Your task to perform on an android device: Clear the shopping cart on costco.com. Search for alienware area 51 on costco.com, select the first entry, add it to the cart, then select checkout. Image 0: 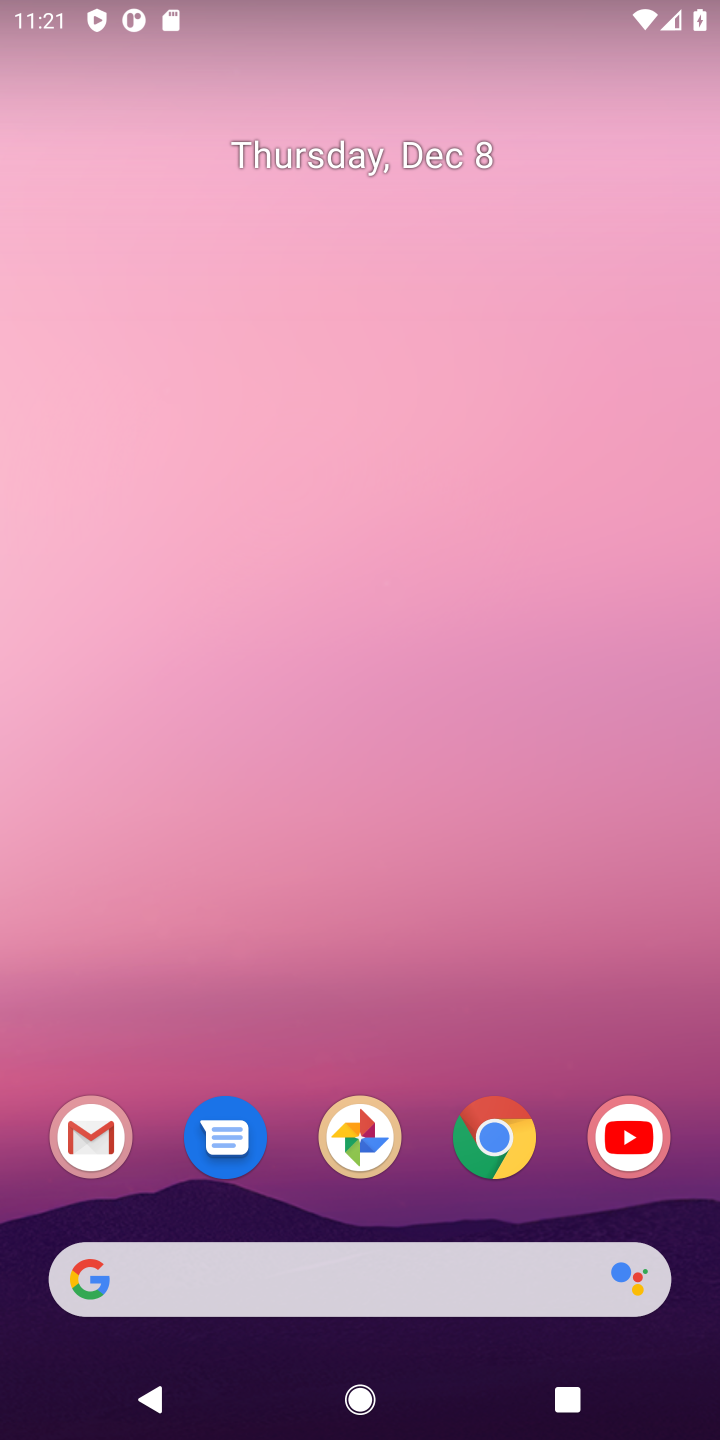
Step 0: click (504, 1133)
Your task to perform on an android device: Clear the shopping cart on costco.com. Search for alienware area 51 on costco.com, select the first entry, add it to the cart, then select checkout. Image 1: 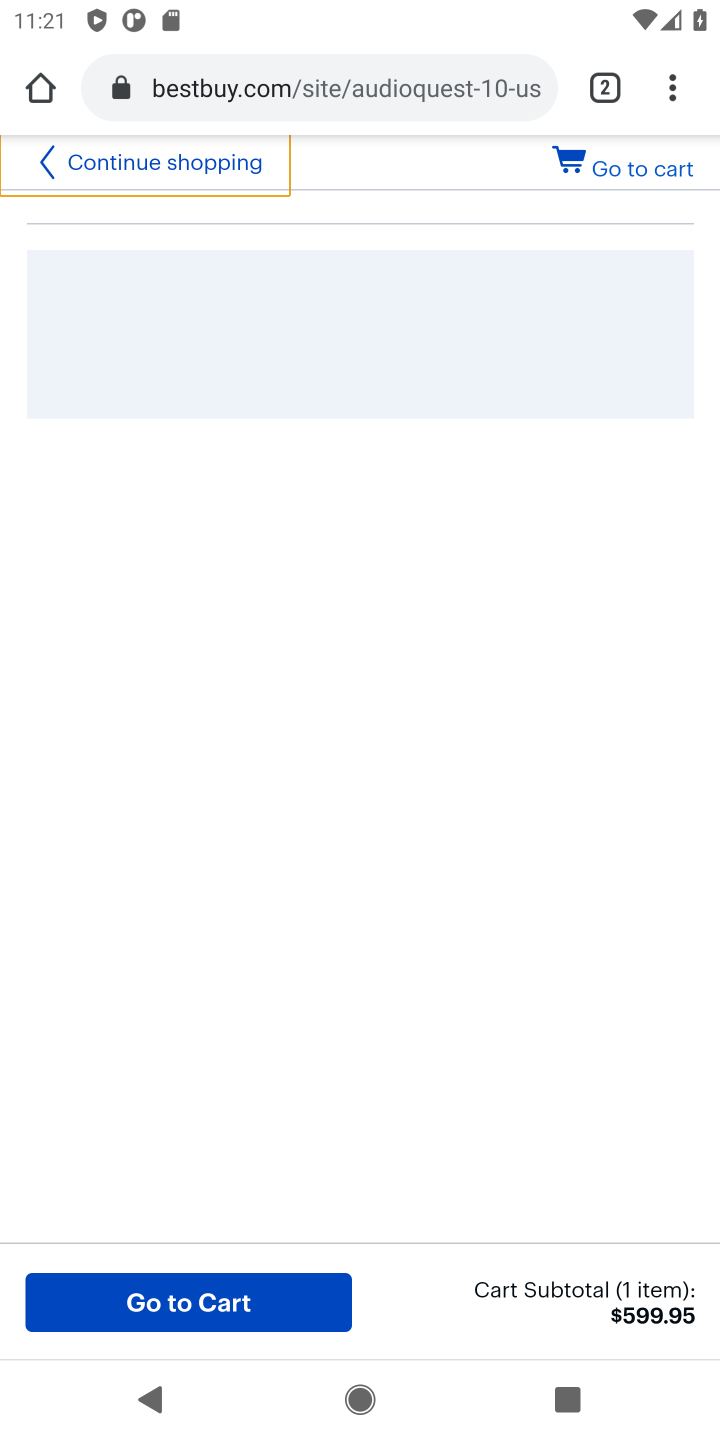
Step 1: click (309, 86)
Your task to perform on an android device: Clear the shopping cart on costco.com. Search for alienware area 51 on costco.com, select the first entry, add it to the cart, then select checkout. Image 2: 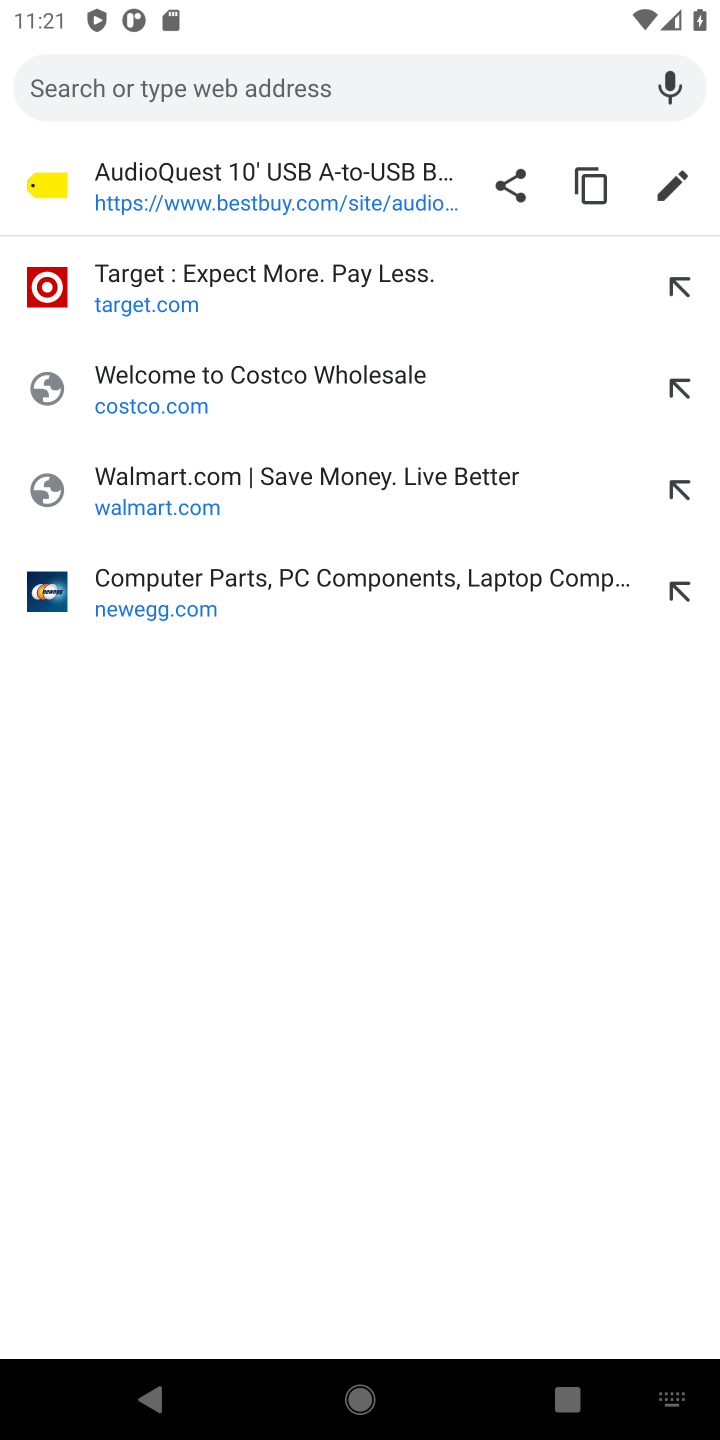
Step 2: click (262, 393)
Your task to perform on an android device: Clear the shopping cart on costco.com. Search for alienware area 51 on costco.com, select the first entry, add it to the cart, then select checkout. Image 3: 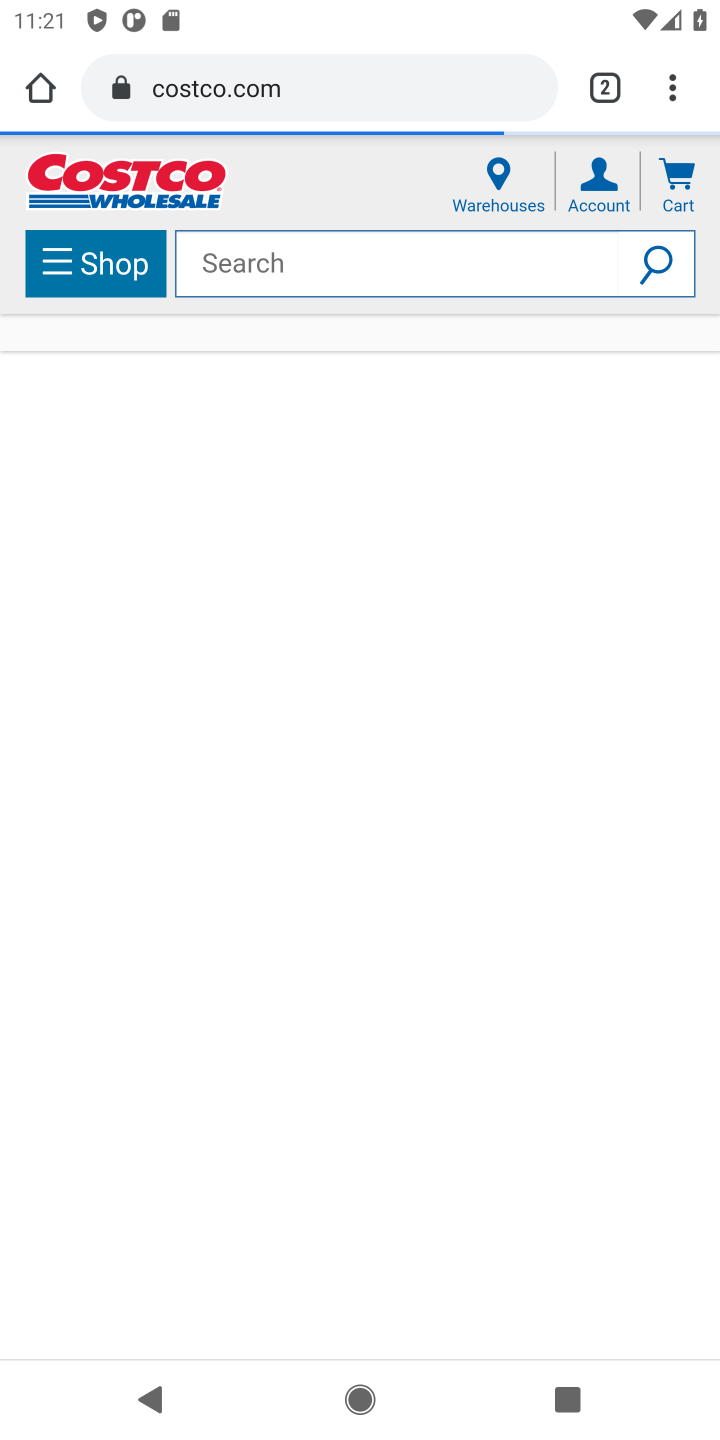
Step 3: click (680, 179)
Your task to perform on an android device: Clear the shopping cart on costco.com. Search for alienware area 51 on costco.com, select the first entry, add it to the cart, then select checkout. Image 4: 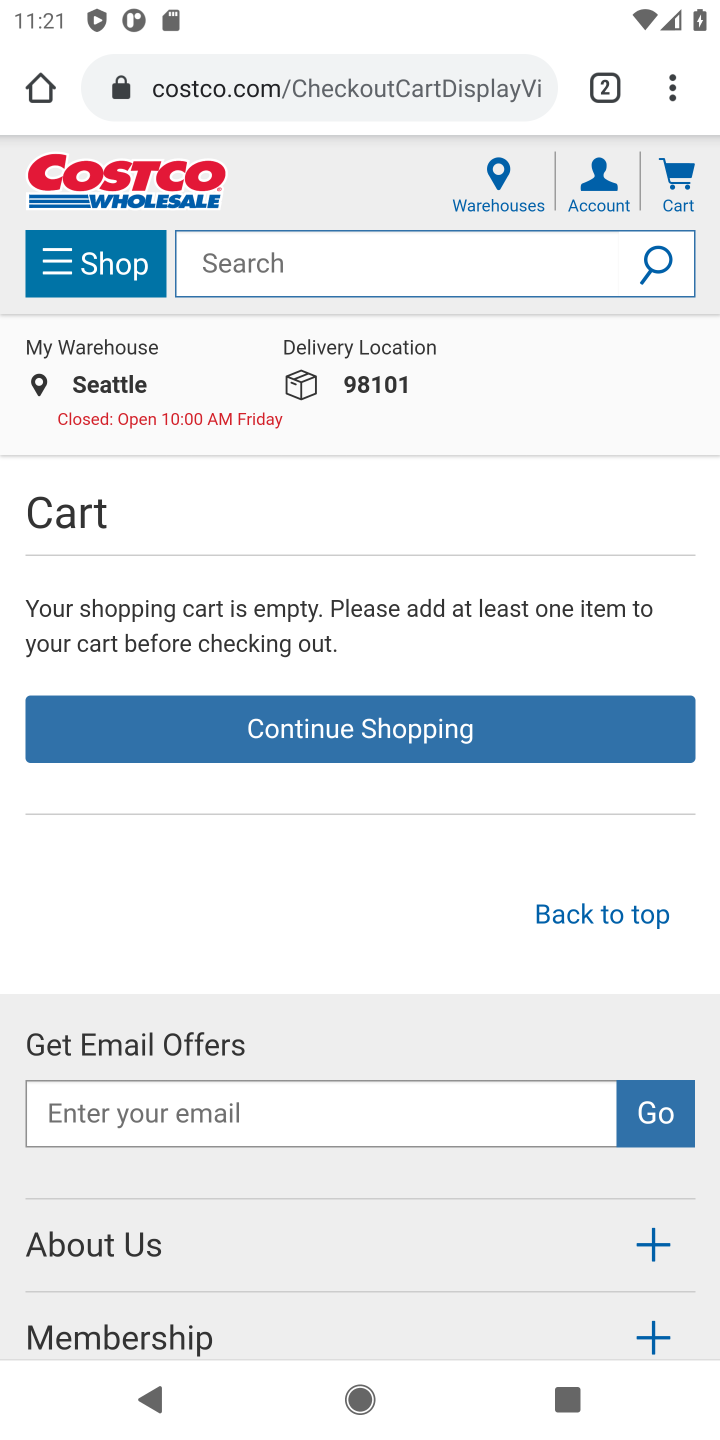
Step 4: click (335, 274)
Your task to perform on an android device: Clear the shopping cart on costco.com. Search for alienware area 51 on costco.com, select the first entry, add it to the cart, then select checkout. Image 5: 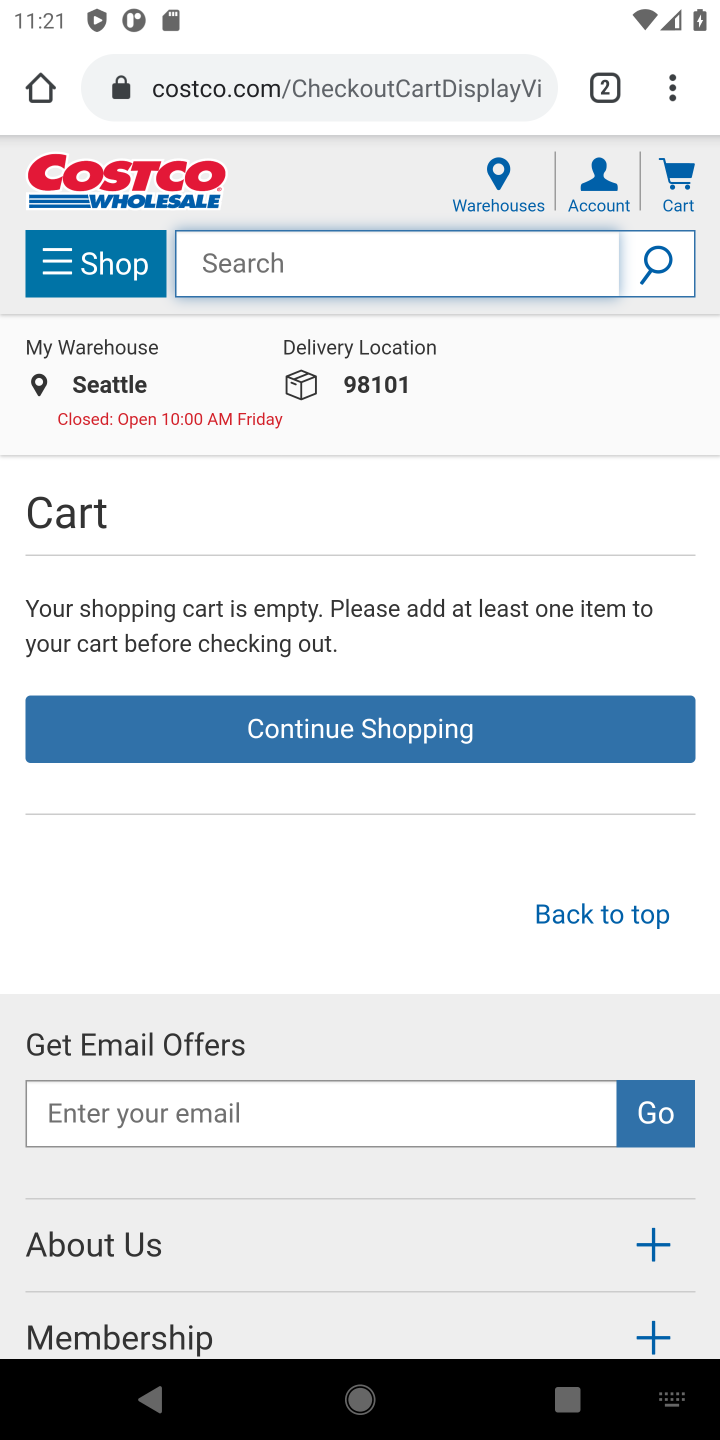
Step 5: click (356, 275)
Your task to perform on an android device: Clear the shopping cart on costco.com. Search for alienware area 51 on costco.com, select the first entry, add it to the cart, then select checkout. Image 6: 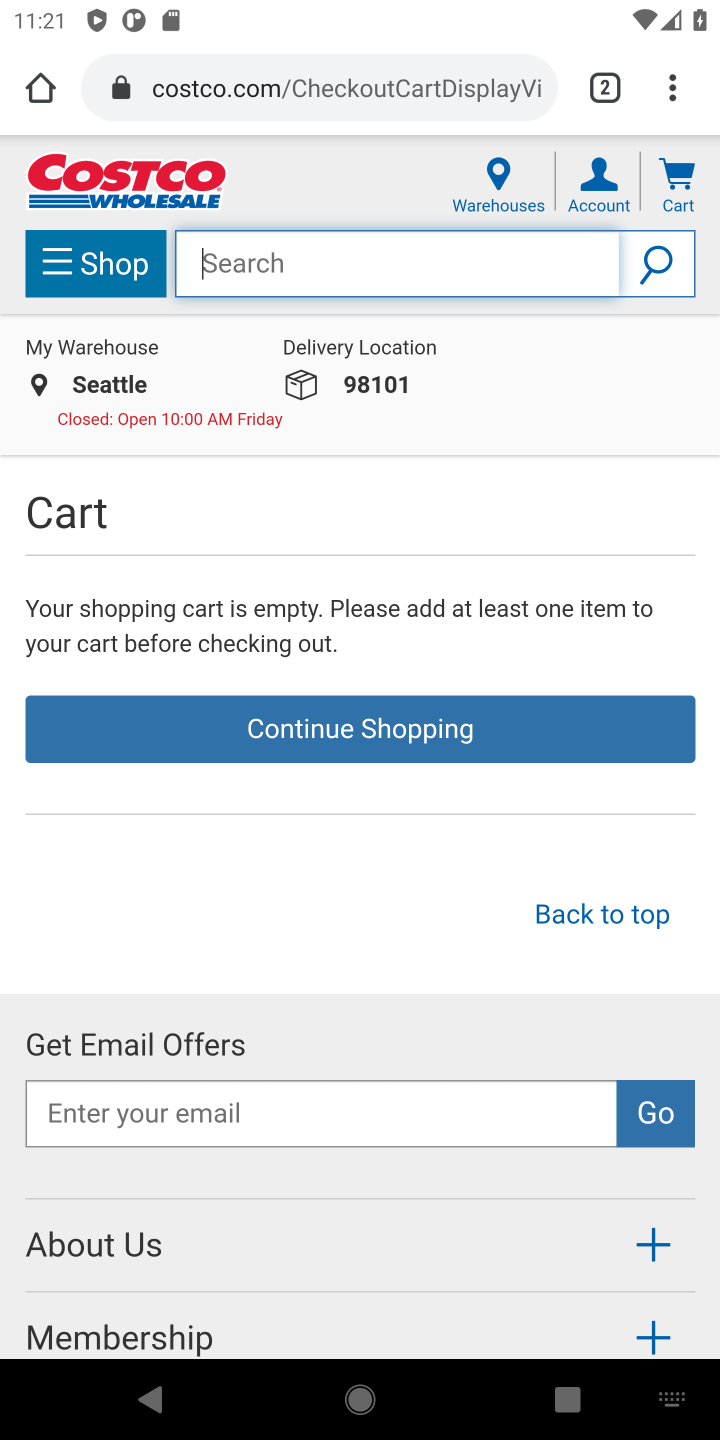
Step 6: type "alienware area 51"
Your task to perform on an android device: Clear the shopping cart on costco.com. Search for alienware area 51 on costco.com, select the first entry, add it to the cart, then select checkout. Image 7: 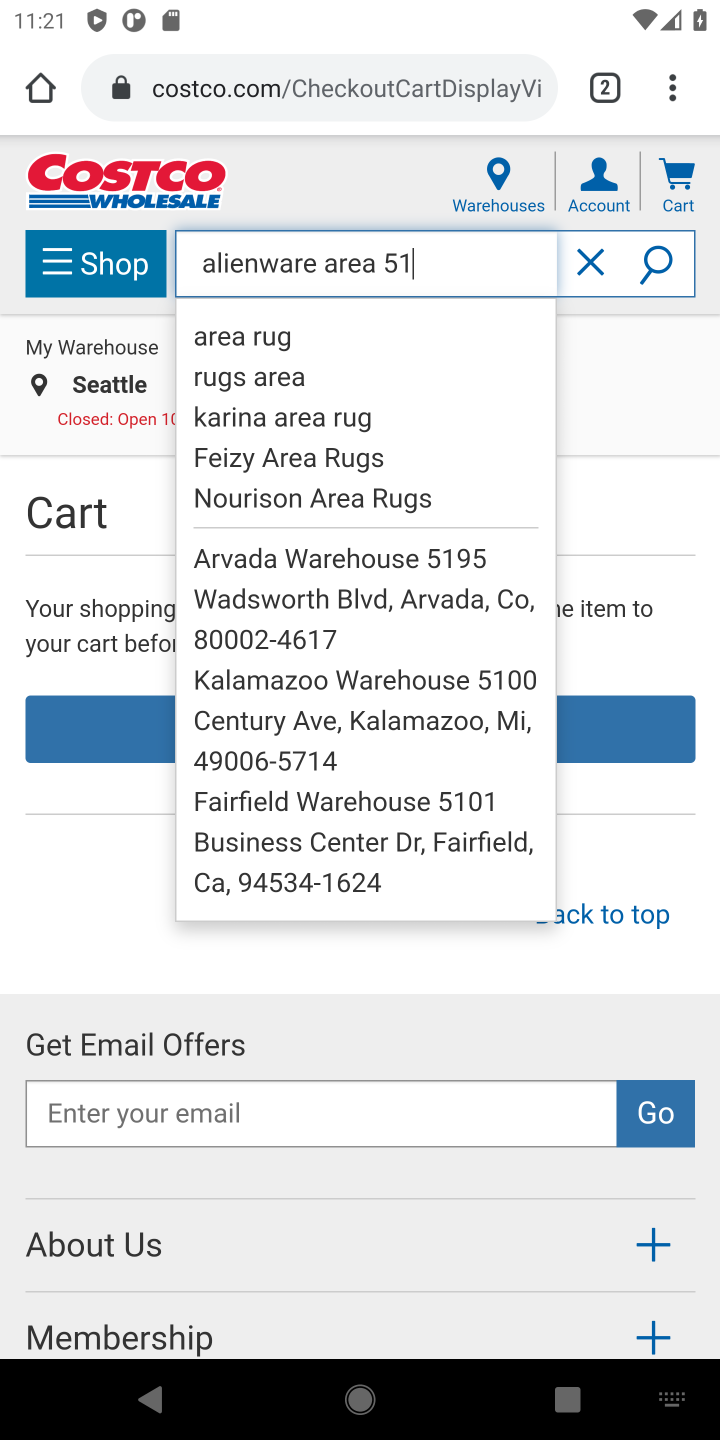
Step 7: click (245, 333)
Your task to perform on an android device: Clear the shopping cart on costco.com. Search for alienware area 51 on costco.com, select the first entry, add it to the cart, then select checkout. Image 8: 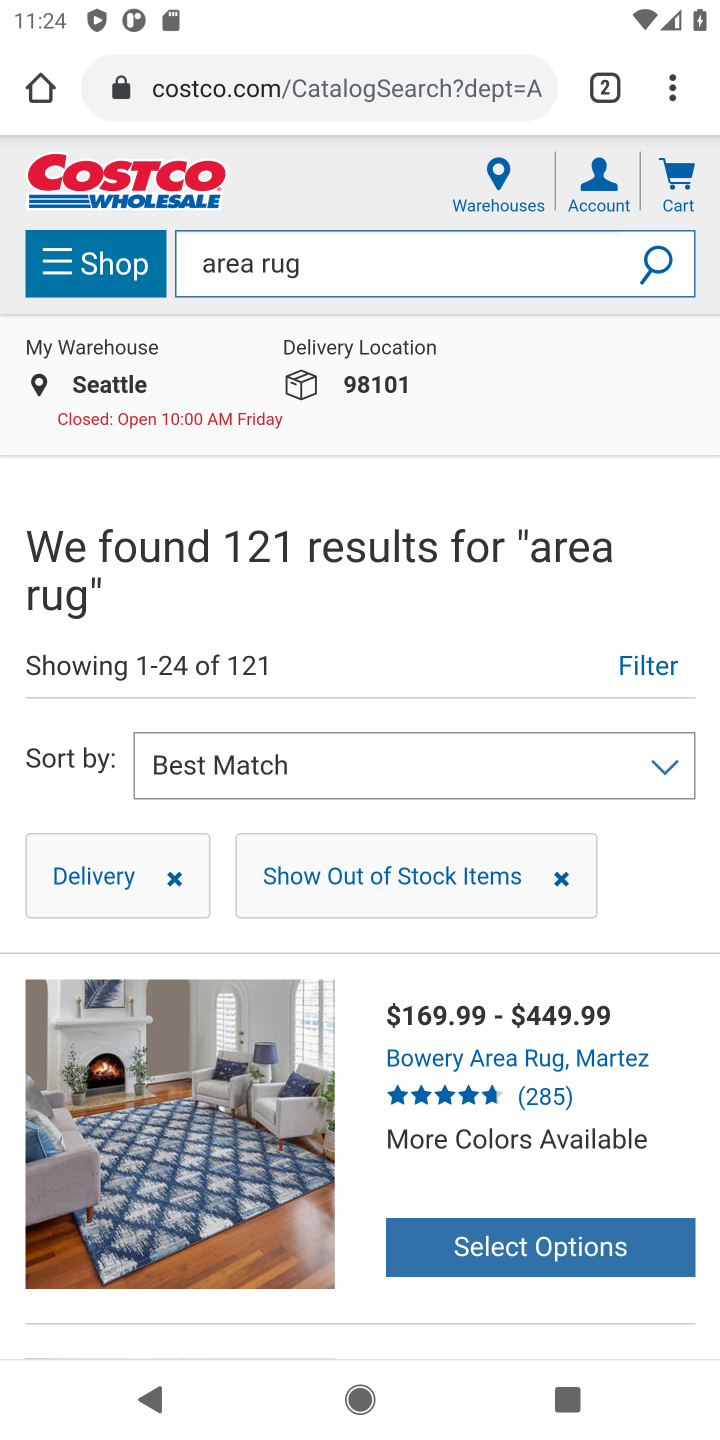
Step 8: click (261, 1179)
Your task to perform on an android device: Clear the shopping cart on costco.com. Search for alienware area 51 on costco.com, select the first entry, add it to the cart, then select checkout. Image 9: 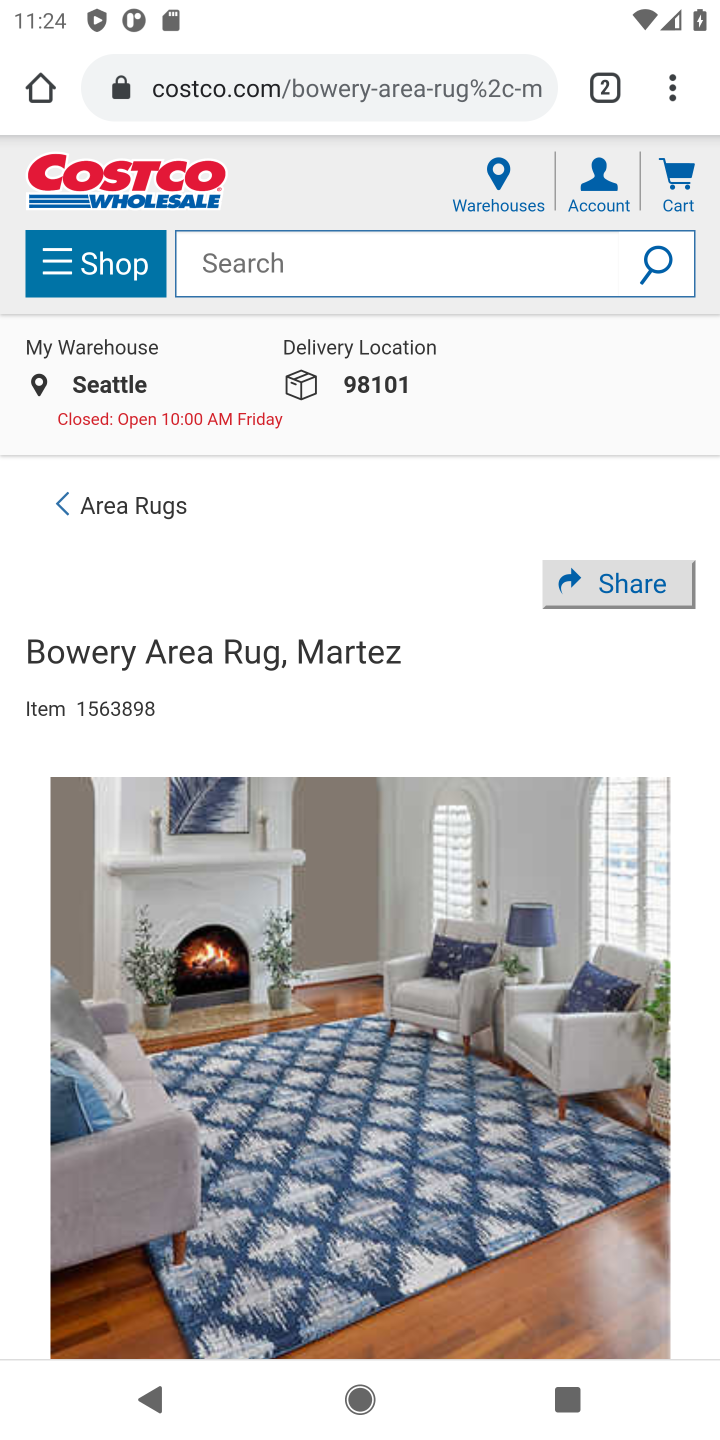
Step 9: drag from (467, 1264) to (301, 229)
Your task to perform on an android device: Clear the shopping cart on costco.com. Search for alienware area 51 on costco.com, select the first entry, add it to the cart, then select checkout. Image 10: 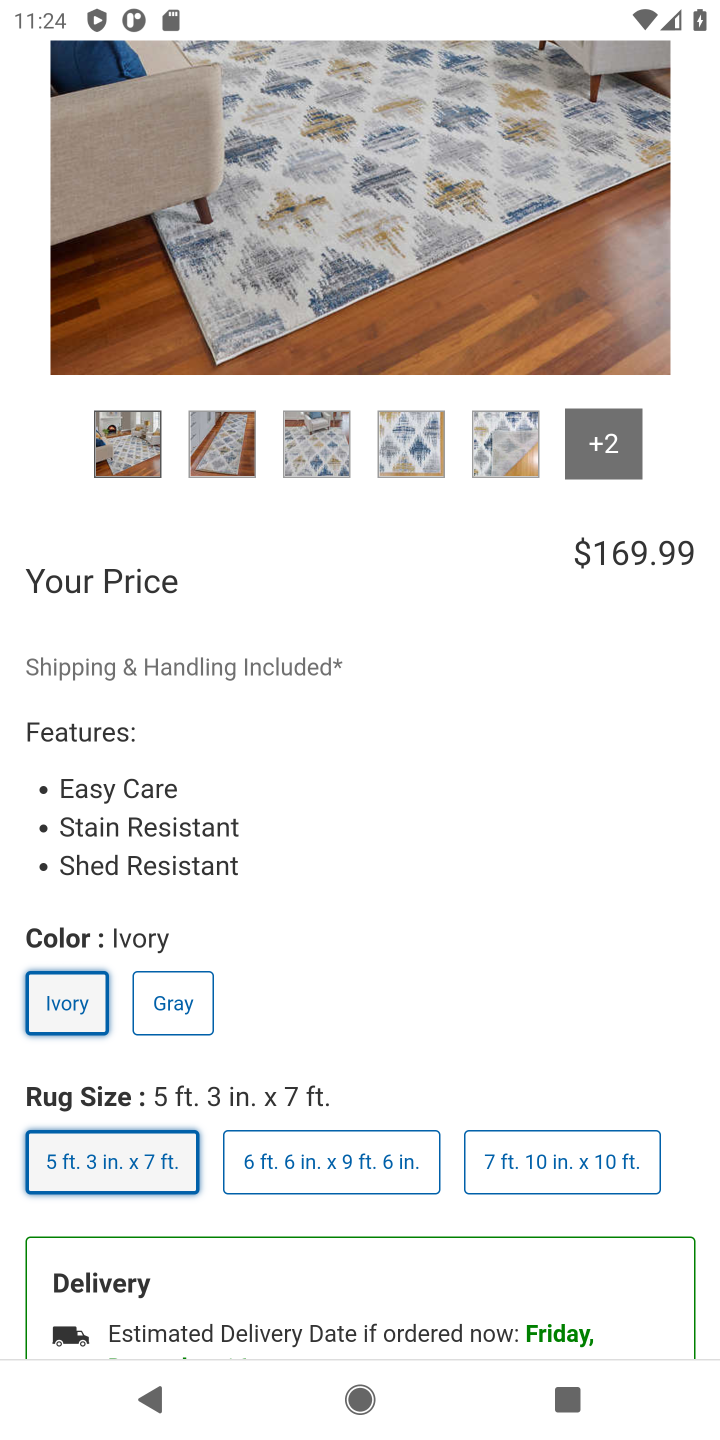
Step 10: drag from (531, 1249) to (436, 245)
Your task to perform on an android device: Clear the shopping cart on costco.com. Search for alienware area 51 on costco.com, select the first entry, add it to the cart, then select checkout. Image 11: 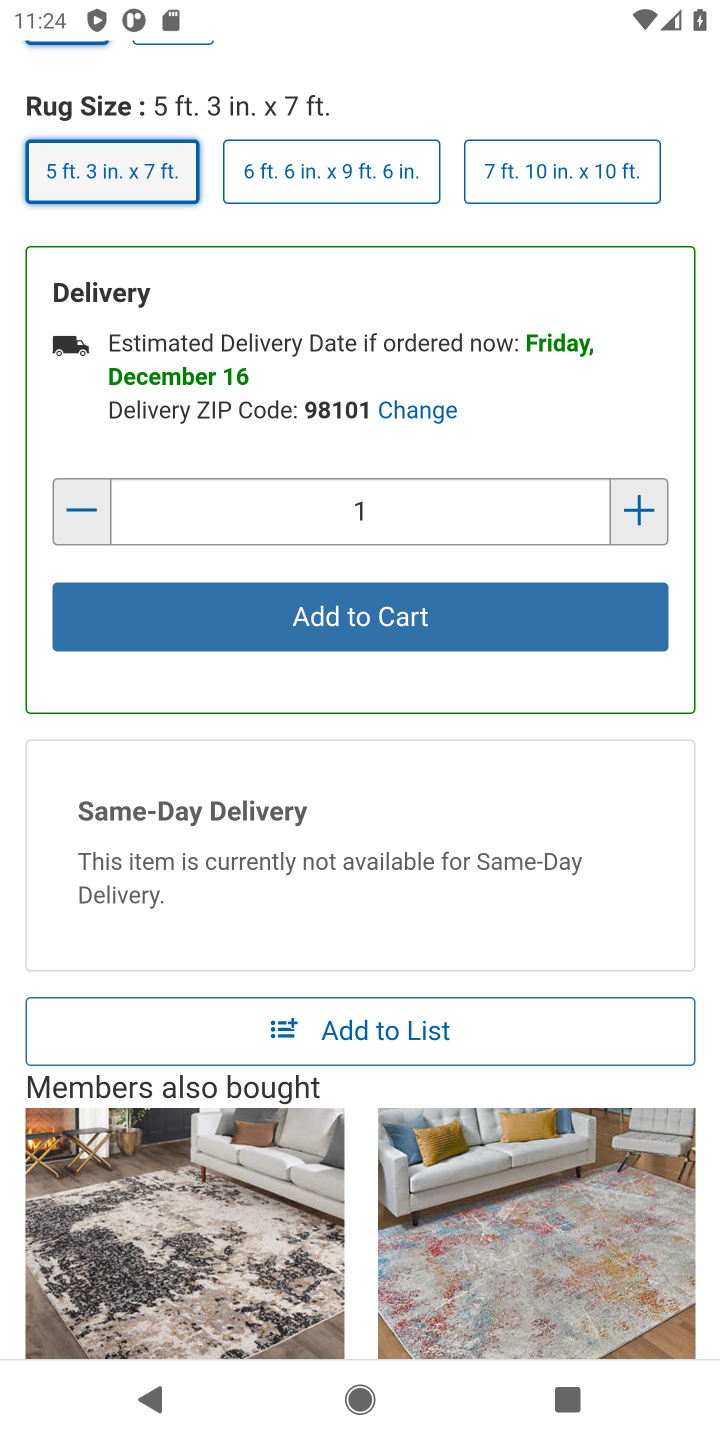
Step 11: click (404, 620)
Your task to perform on an android device: Clear the shopping cart on costco.com. Search for alienware area 51 on costco.com, select the first entry, add it to the cart, then select checkout. Image 12: 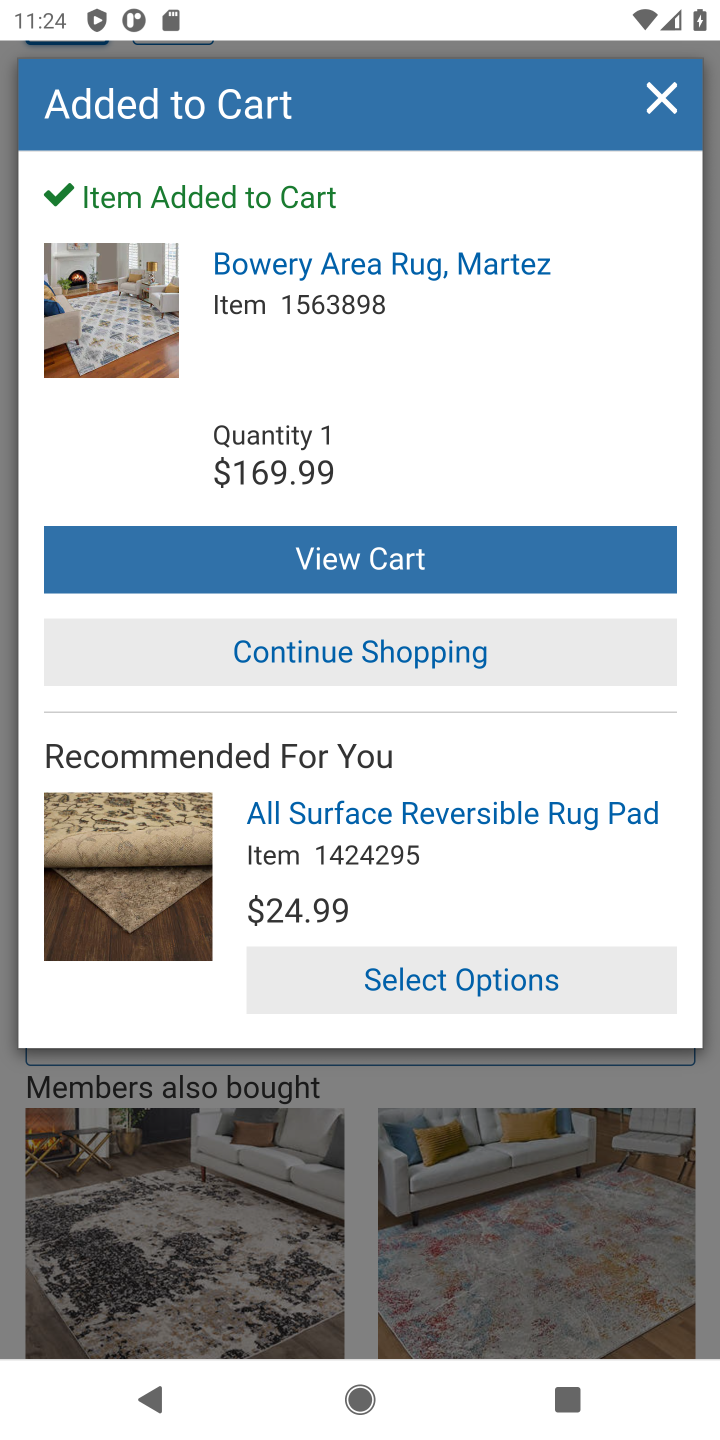
Step 12: click (380, 564)
Your task to perform on an android device: Clear the shopping cart on costco.com. Search for alienware area 51 on costco.com, select the first entry, add it to the cart, then select checkout. Image 13: 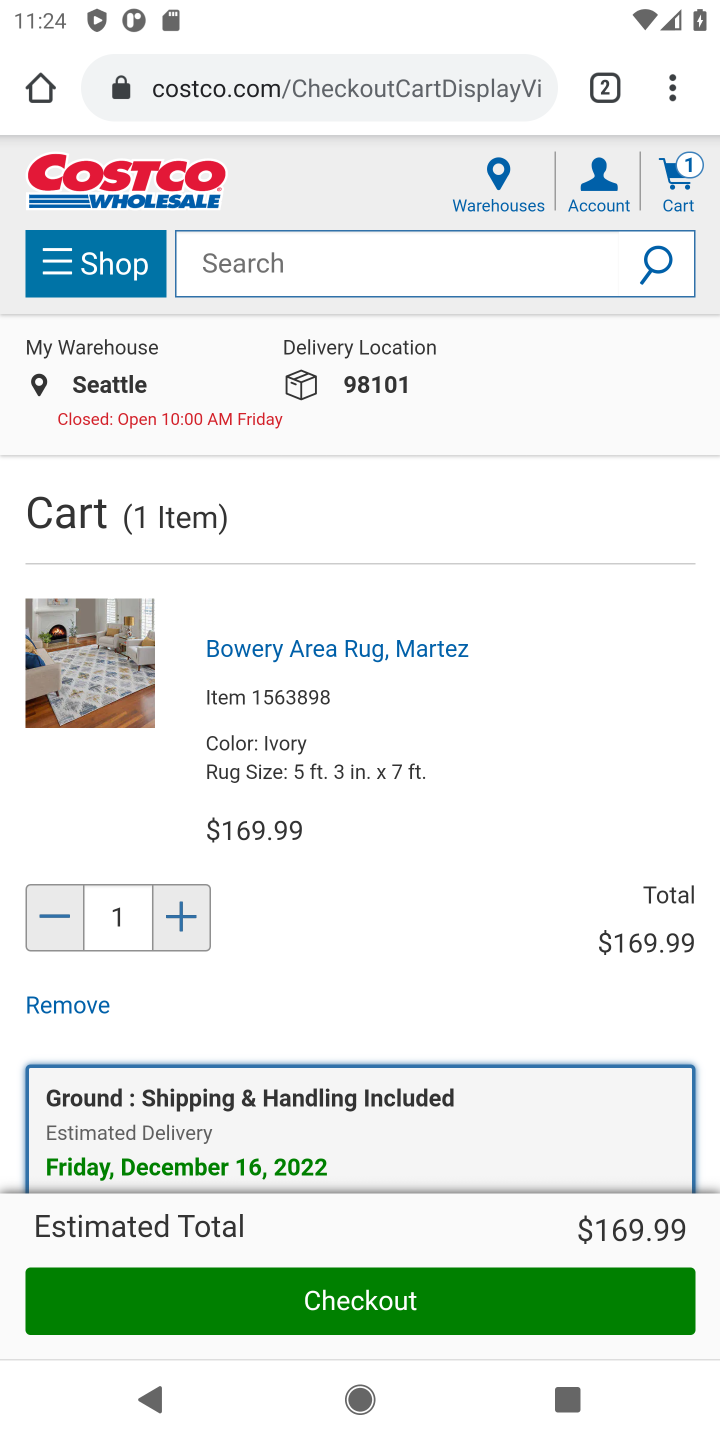
Step 13: click (373, 1300)
Your task to perform on an android device: Clear the shopping cart on costco.com. Search for alienware area 51 on costco.com, select the first entry, add it to the cart, then select checkout. Image 14: 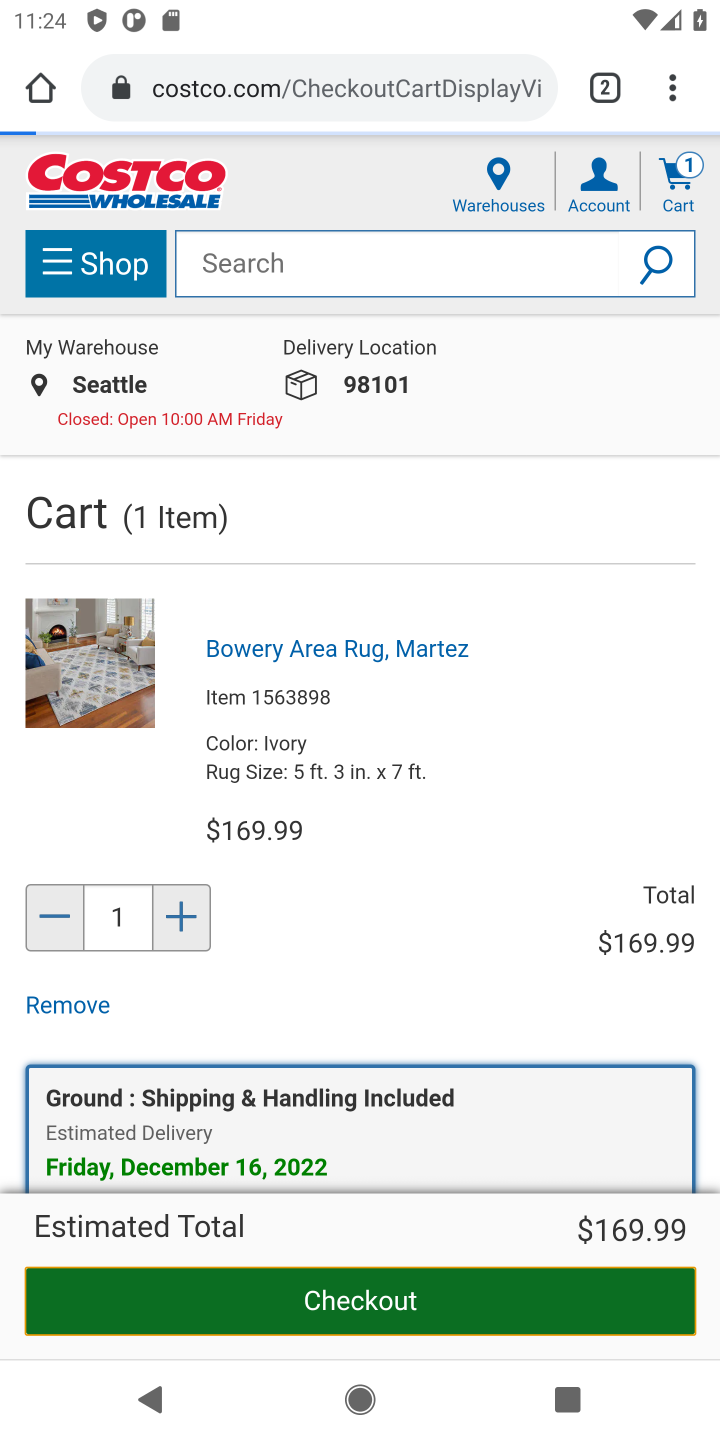
Step 14: task complete